Your task to perform on an android device: Go to internet settings Image 0: 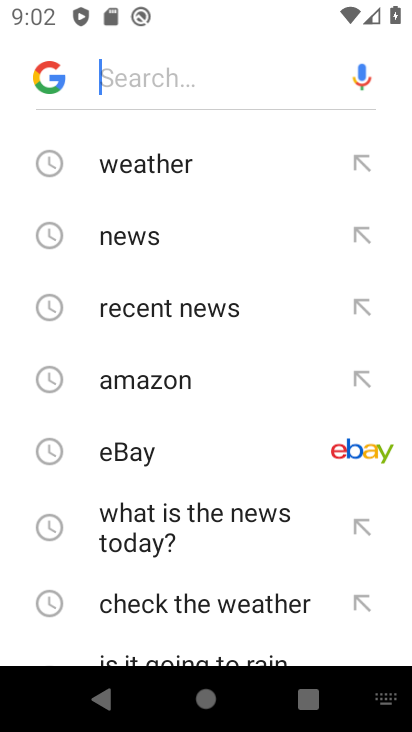
Step 0: press back button
Your task to perform on an android device: Go to internet settings Image 1: 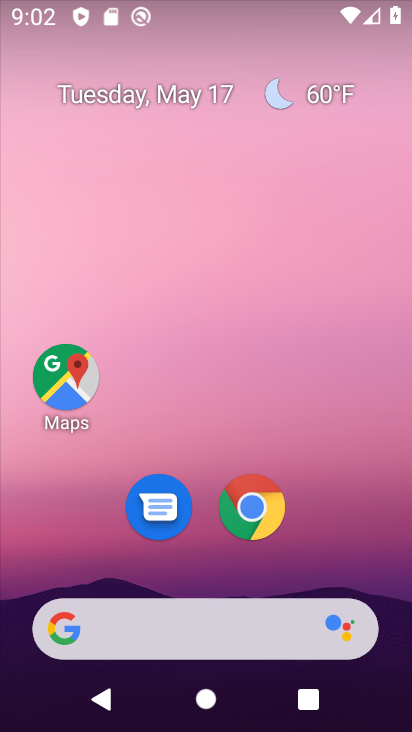
Step 1: drag from (101, 588) to (215, 172)
Your task to perform on an android device: Go to internet settings Image 2: 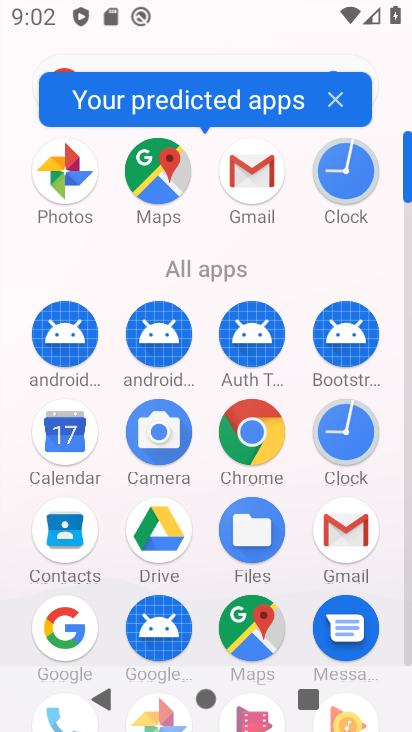
Step 2: drag from (199, 578) to (259, 259)
Your task to perform on an android device: Go to internet settings Image 3: 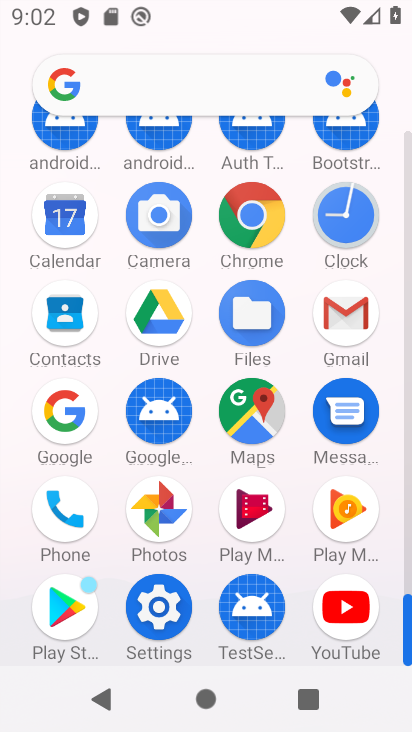
Step 3: click (157, 620)
Your task to perform on an android device: Go to internet settings Image 4: 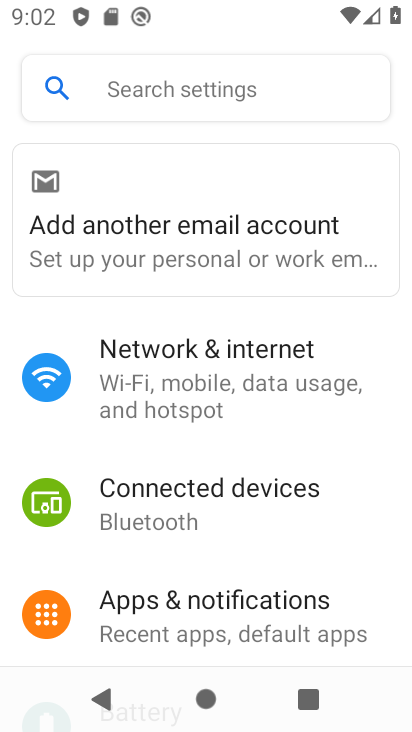
Step 4: click (237, 368)
Your task to perform on an android device: Go to internet settings Image 5: 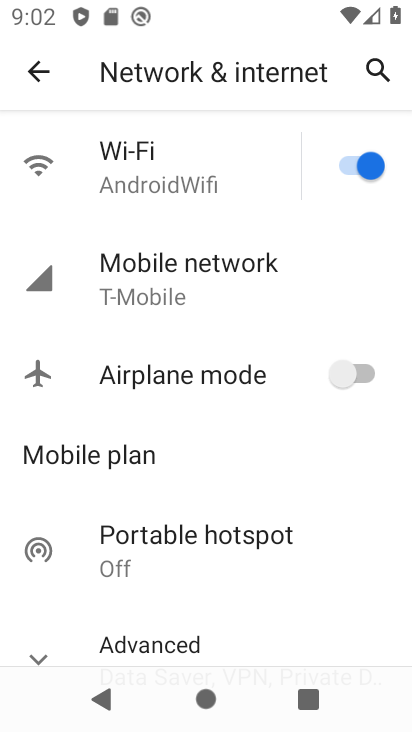
Step 5: click (211, 291)
Your task to perform on an android device: Go to internet settings Image 6: 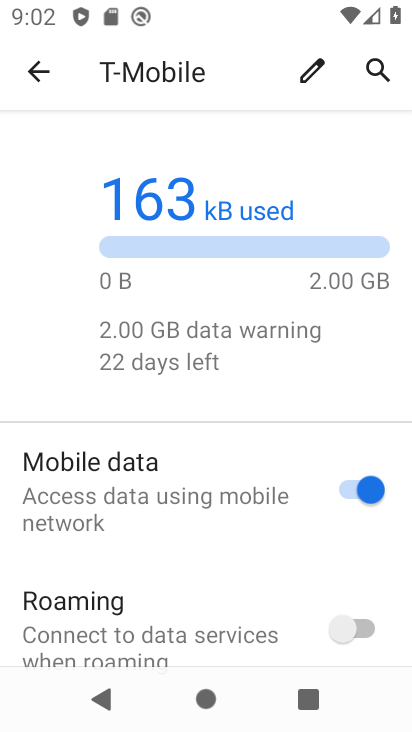
Step 6: task complete